Your task to perform on an android device: Open notification settings Image 0: 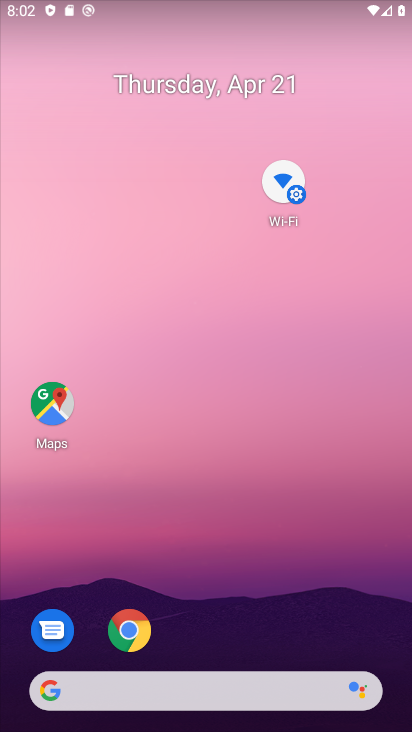
Step 0: drag from (243, 609) to (159, 111)
Your task to perform on an android device: Open notification settings Image 1: 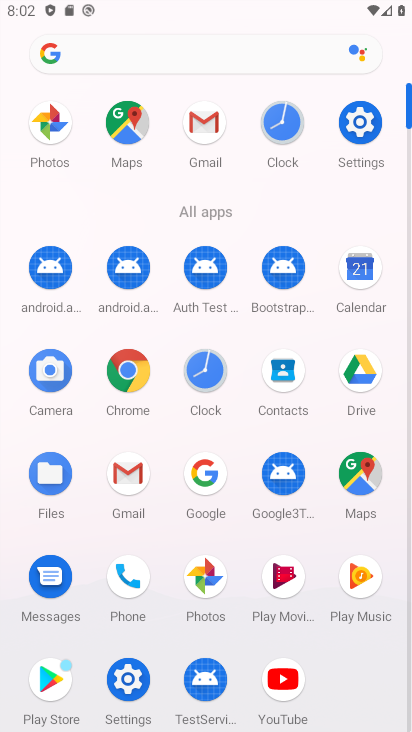
Step 1: click (359, 121)
Your task to perform on an android device: Open notification settings Image 2: 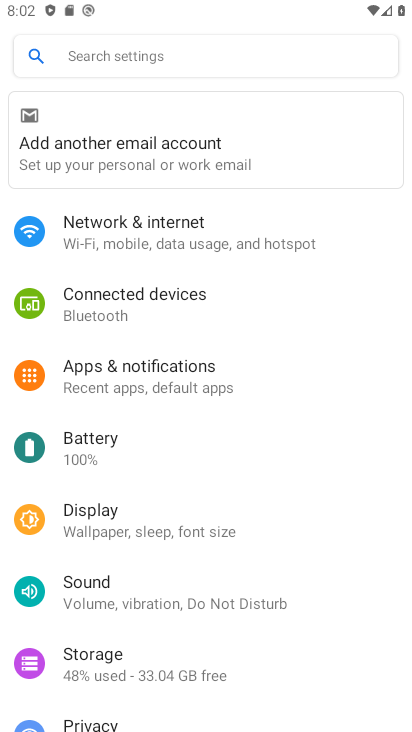
Step 2: click (179, 368)
Your task to perform on an android device: Open notification settings Image 3: 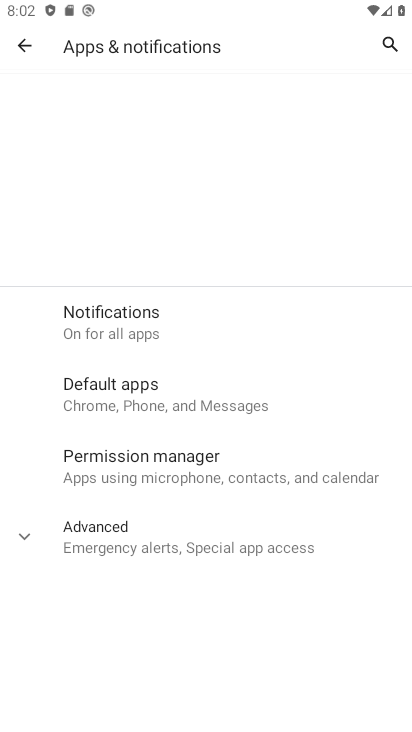
Step 3: click (100, 327)
Your task to perform on an android device: Open notification settings Image 4: 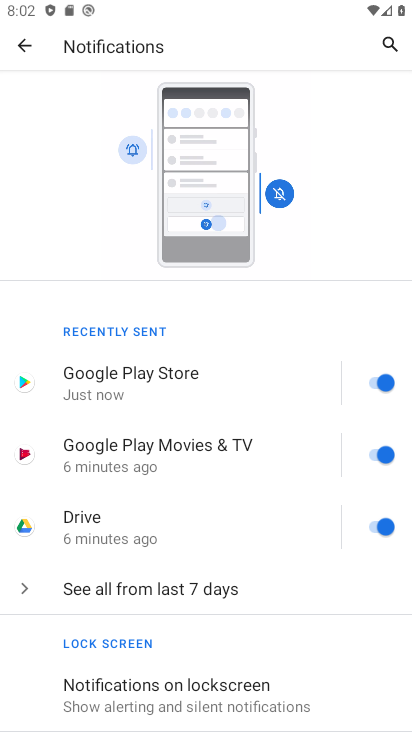
Step 4: task complete